Your task to perform on an android device: Go to ESPN.com Image 0: 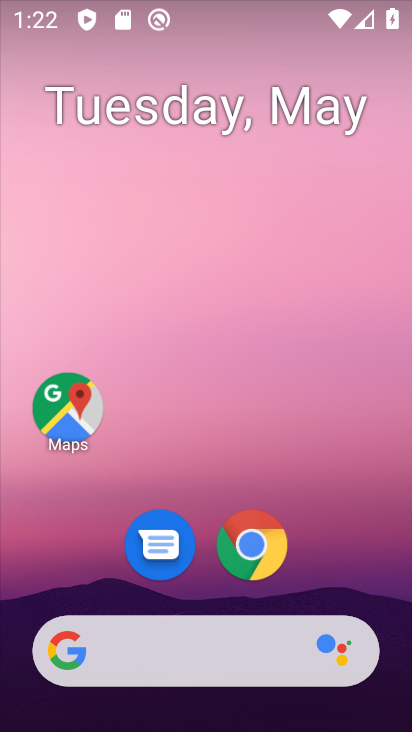
Step 0: click (254, 550)
Your task to perform on an android device: Go to ESPN.com Image 1: 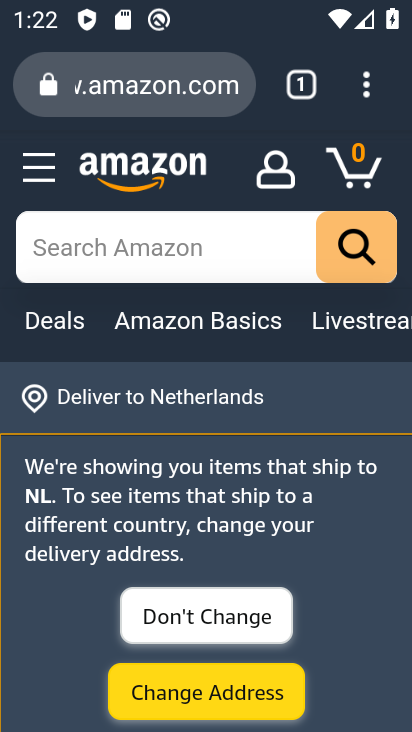
Step 1: click (129, 92)
Your task to perform on an android device: Go to ESPN.com Image 2: 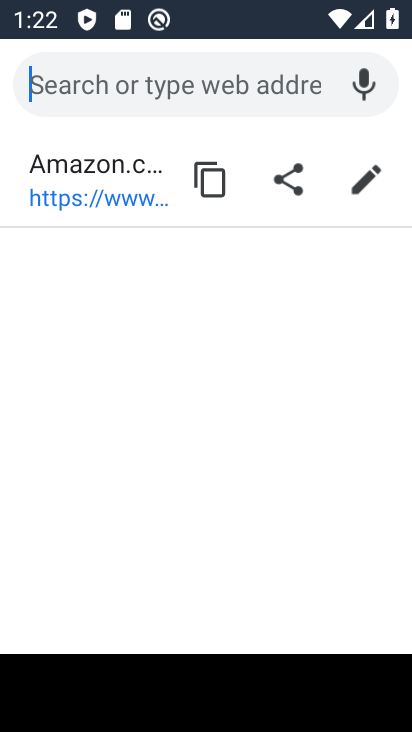
Step 2: type "espn.com"
Your task to perform on an android device: Go to ESPN.com Image 3: 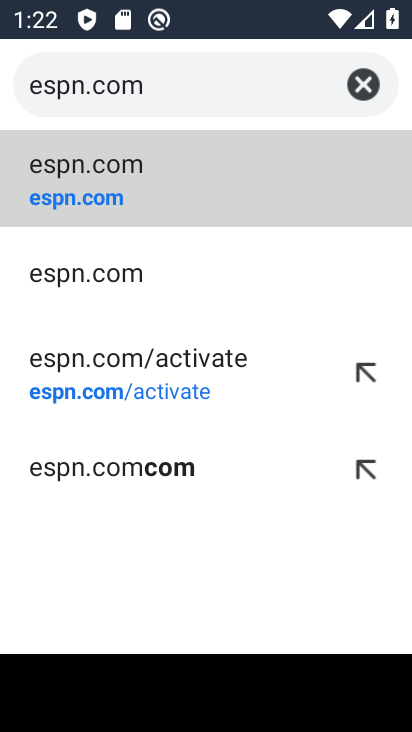
Step 3: click (94, 173)
Your task to perform on an android device: Go to ESPN.com Image 4: 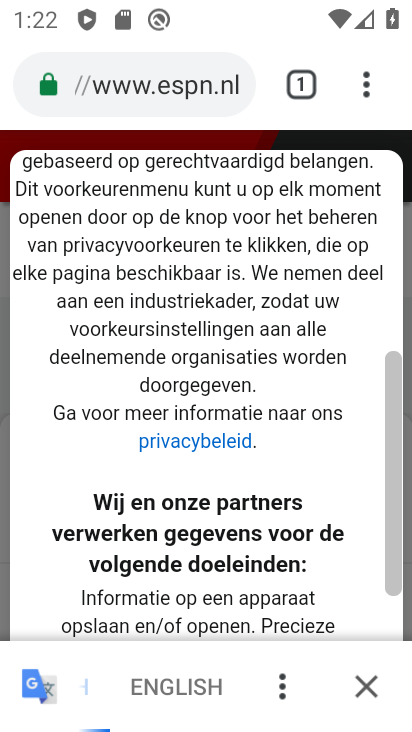
Step 4: task complete